Your task to perform on an android device: check the backup settings in the google photos Image 0: 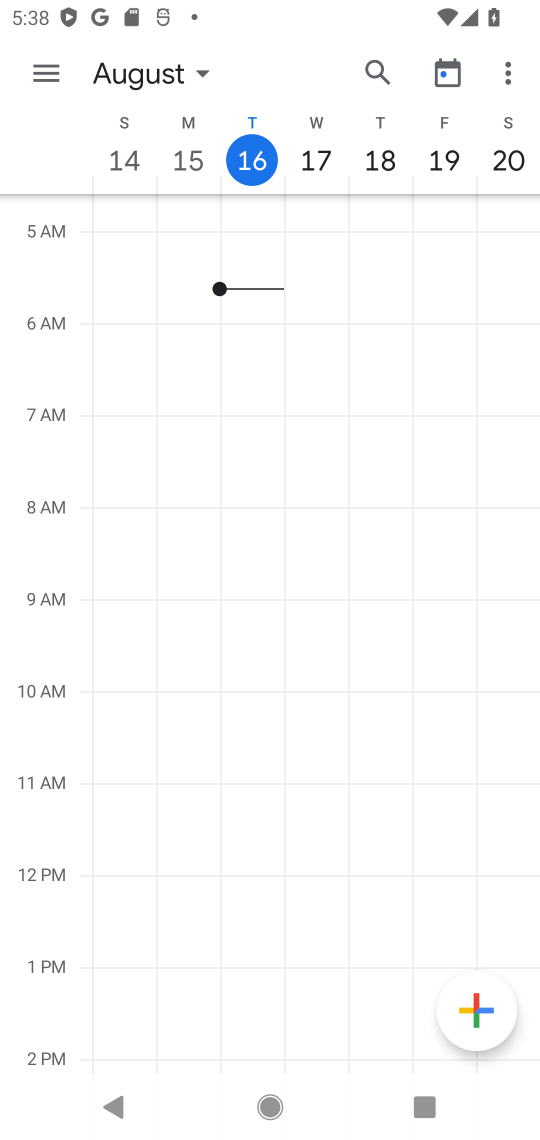
Step 0: press home button
Your task to perform on an android device: check the backup settings in the google photos Image 1: 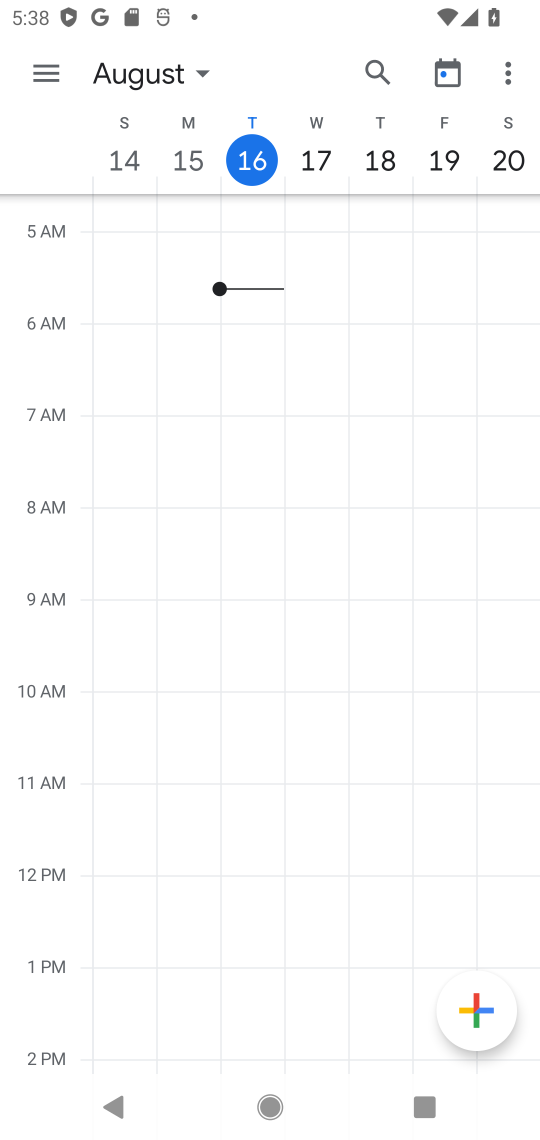
Step 1: press home button
Your task to perform on an android device: check the backup settings in the google photos Image 2: 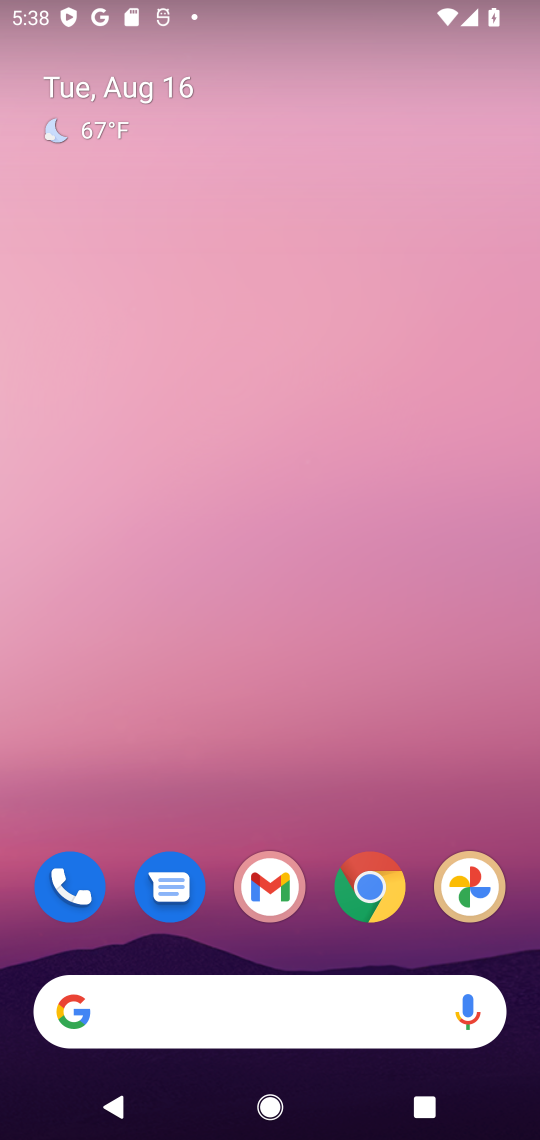
Step 2: drag from (337, 705) to (376, 0)
Your task to perform on an android device: check the backup settings in the google photos Image 3: 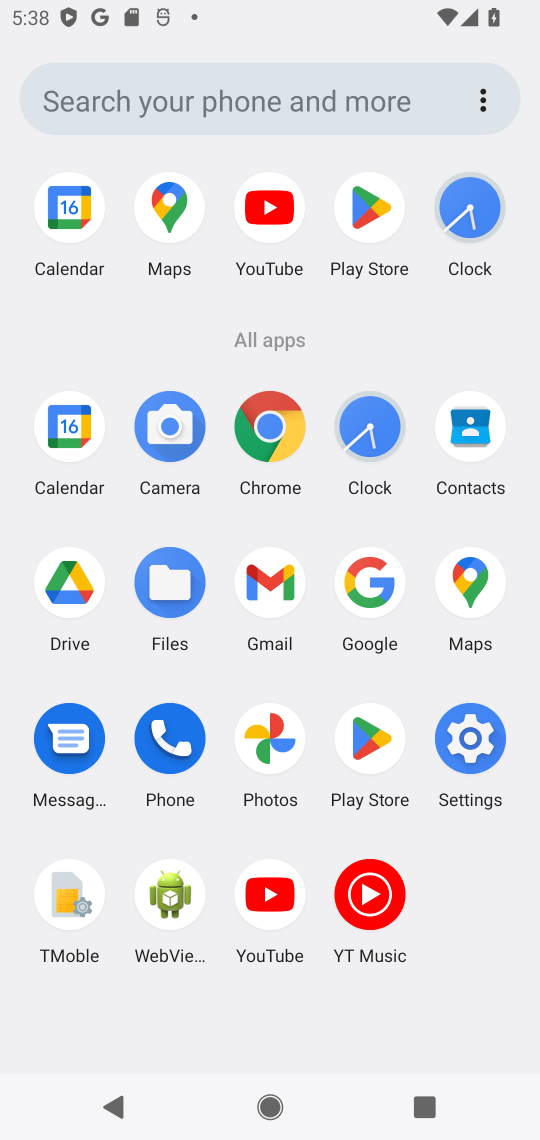
Step 3: click (266, 751)
Your task to perform on an android device: check the backup settings in the google photos Image 4: 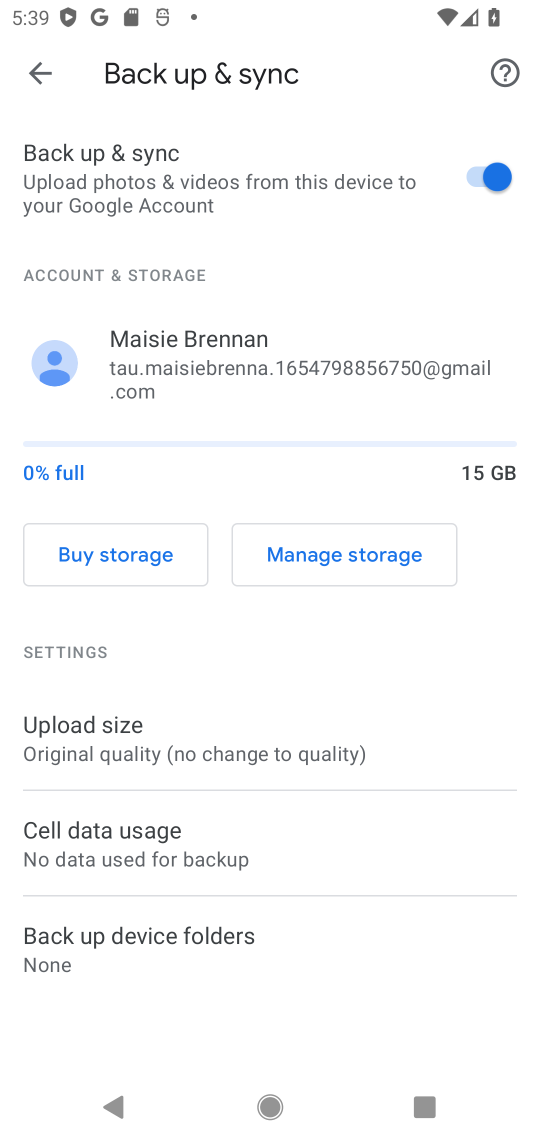
Step 4: task complete